Your task to perform on an android device: Go to notification settings Image 0: 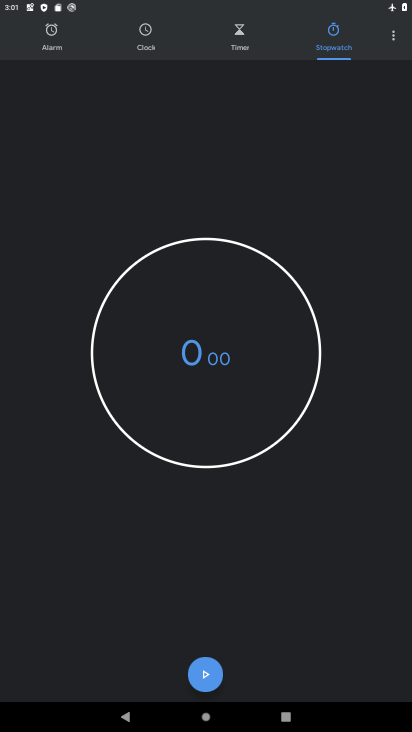
Step 0: press home button
Your task to perform on an android device: Go to notification settings Image 1: 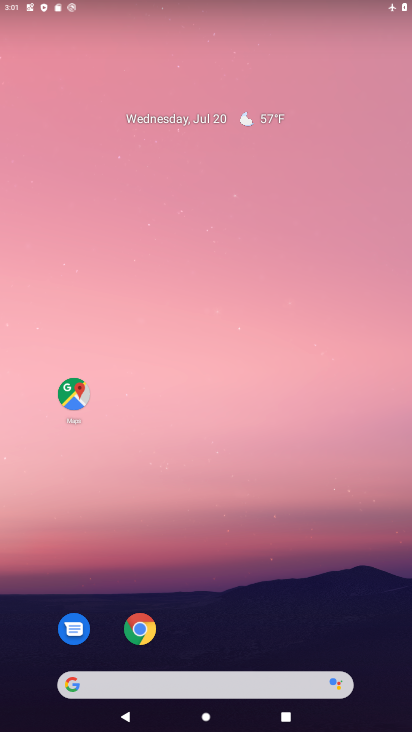
Step 1: drag from (203, 622) to (196, 57)
Your task to perform on an android device: Go to notification settings Image 2: 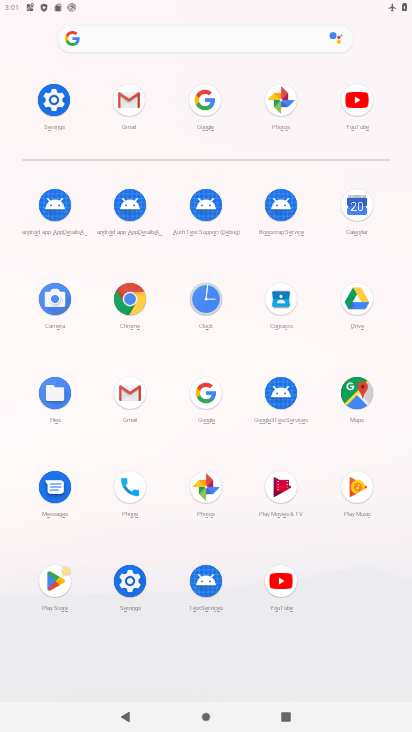
Step 2: click (61, 108)
Your task to perform on an android device: Go to notification settings Image 3: 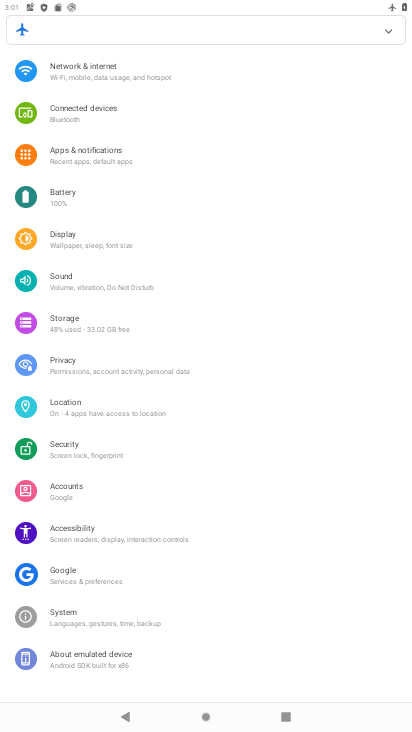
Step 3: click (98, 157)
Your task to perform on an android device: Go to notification settings Image 4: 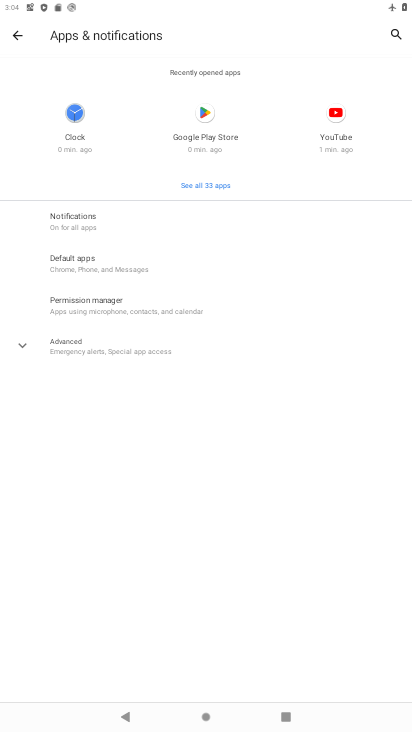
Step 4: task complete